Your task to perform on an android device: change text size in settings app Image 0: 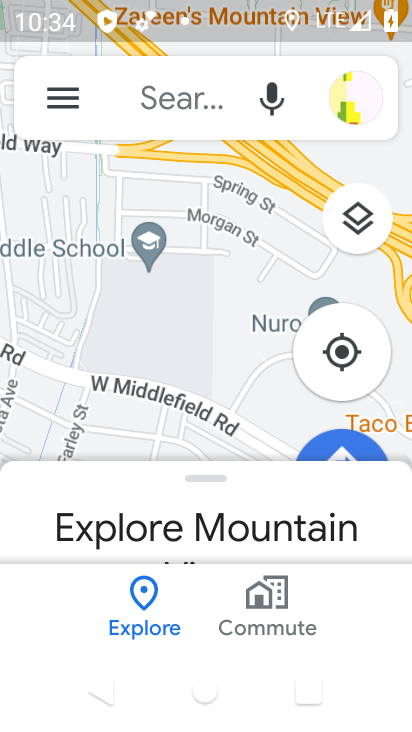
Step 0: press home button
Your task to perform on an android device: change text size in settings app Image 1: 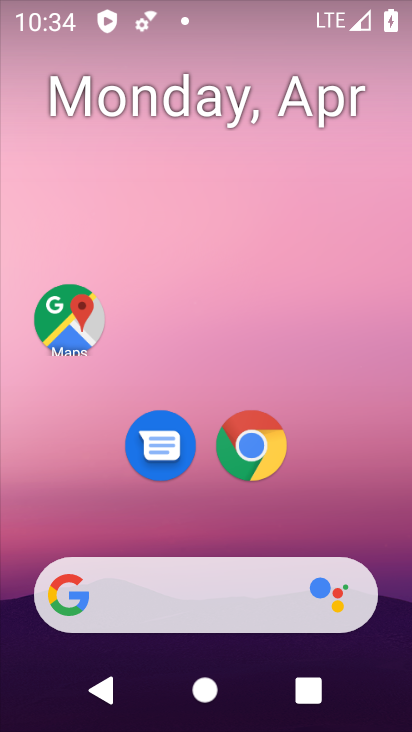
Step 1: drag from (163, 544) to (178, 202)
Your task to perform on an android device: change text size in settings app Image 2: 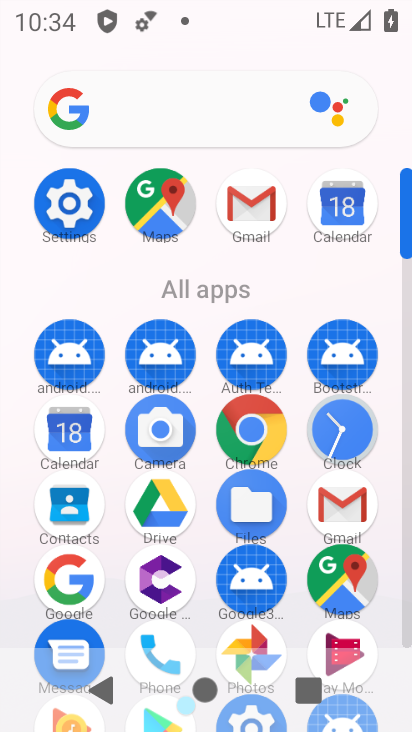
Step 2: click (66, 189)
Your task to perform on an android device: change text size in settings app Image 3: 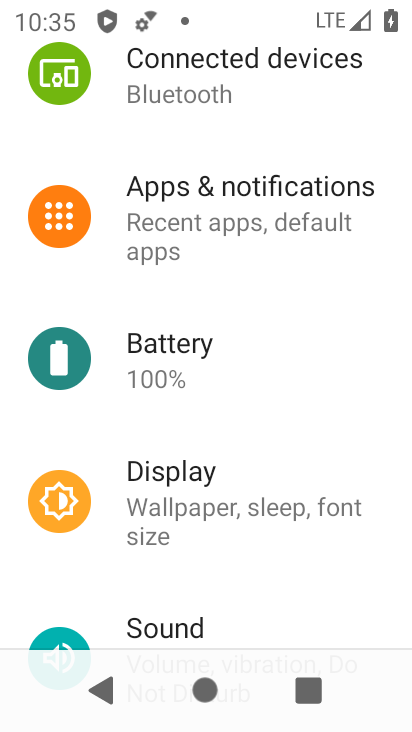
Step 3: drag from (199, 603) to (164, 280)
Your task to perform on an android device: change text size in settings app Image 4: 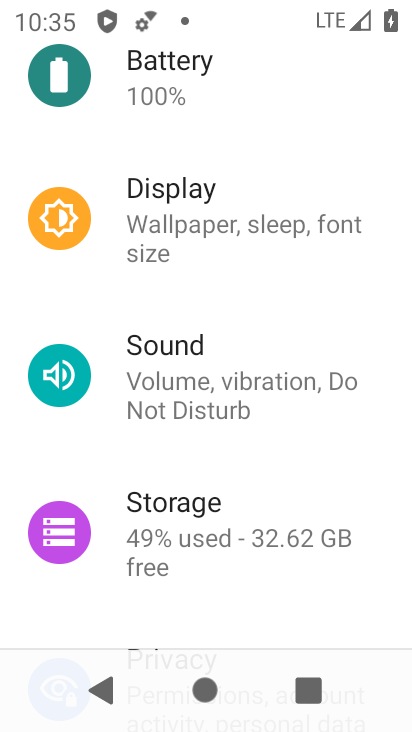
Step 4: drag from (258, 575) to (232, 339)
Your task to perform on an android device: change text size in settings app Image 5: 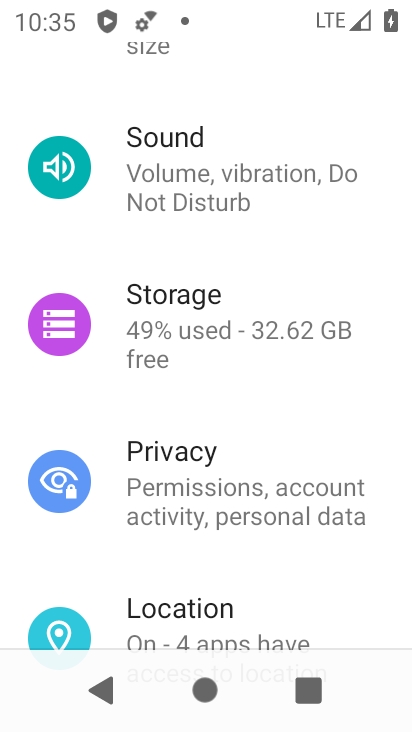
Step 5: drag from (229, 606) to (217, 414)
Your task to perform on an android device: change text size in settings app Image 6: 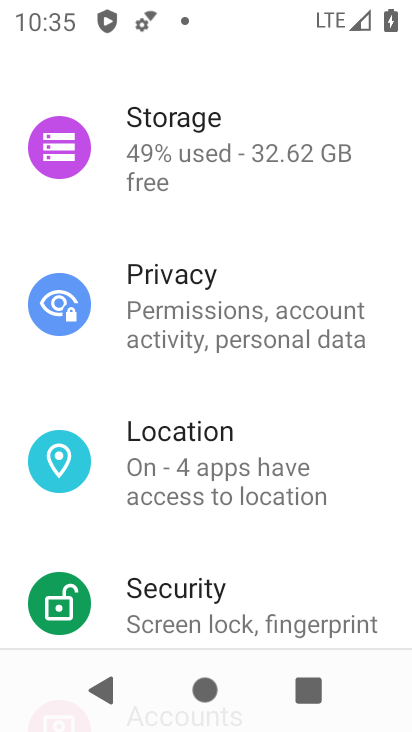
Step 6: drag from (269, 505) to (241, 233)
Your task to perform on an android device: change text size in settings app Image 7: 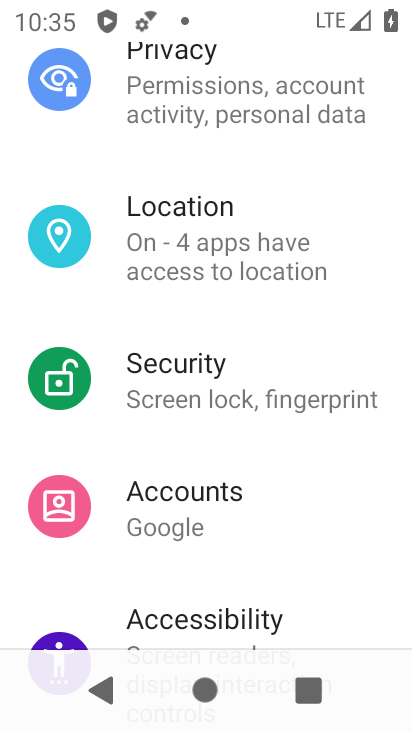
Step 7: drag from (214, 599) to (178, 421)
Your task to perform on an android device: change text size in settings app Image 8: 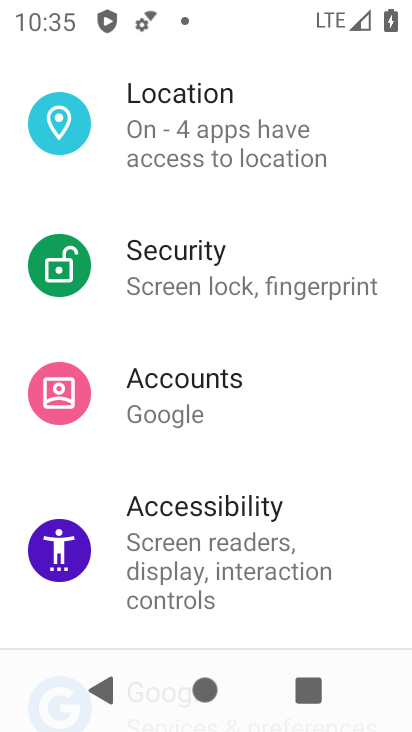
Step 8: drag from (216, 599) to (156, 342)
Your task to perform on an android device: change text size in settings app Image 9: 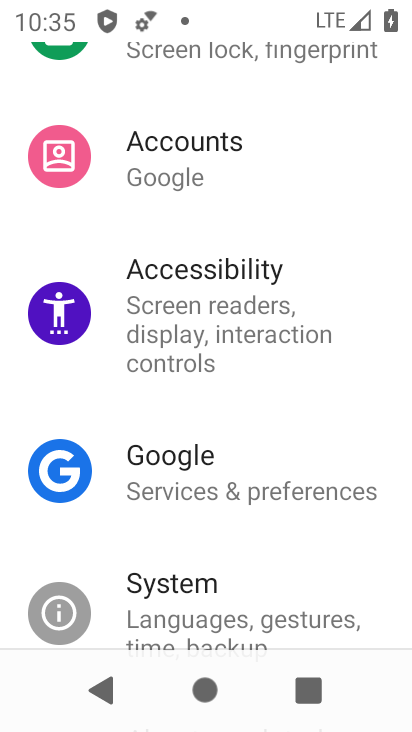
Step 9: click (179, 612)
Your task to perform on an android device: change text size in settings app Image 10: 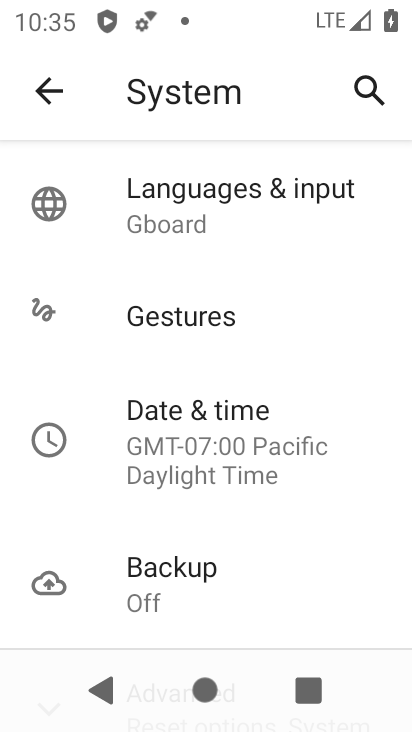
Step 10: click (33, 86)
Your task to perform on an android device: change text size in settings app Image 11: 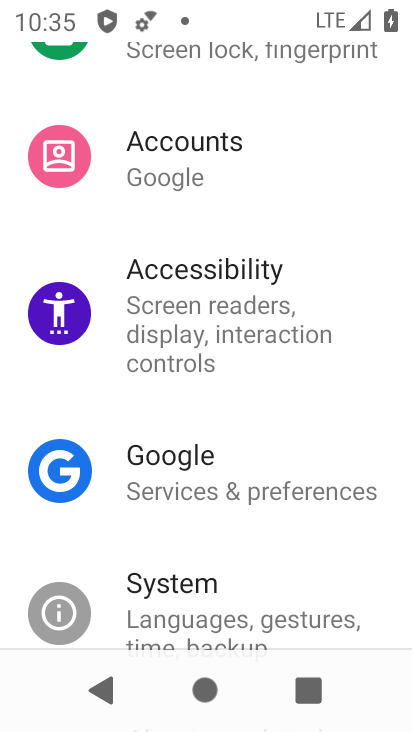
Step 11: click (166, 334)
Your task to perform on an android device: change text size in settings app Image 12: 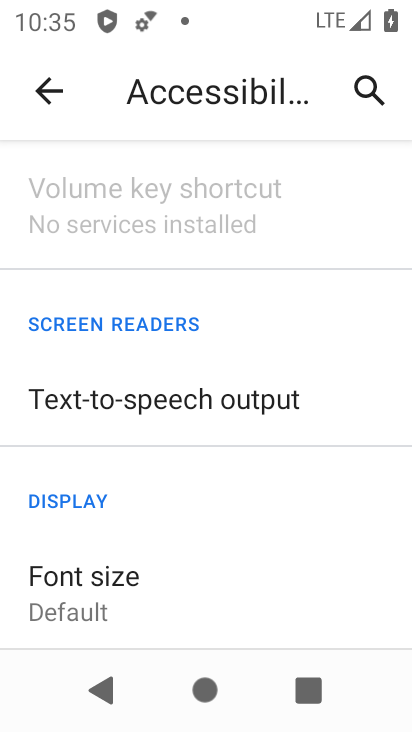
Step 12: click (111, 582)
Your task to perform on an android device: change text size in settings app Image 13: 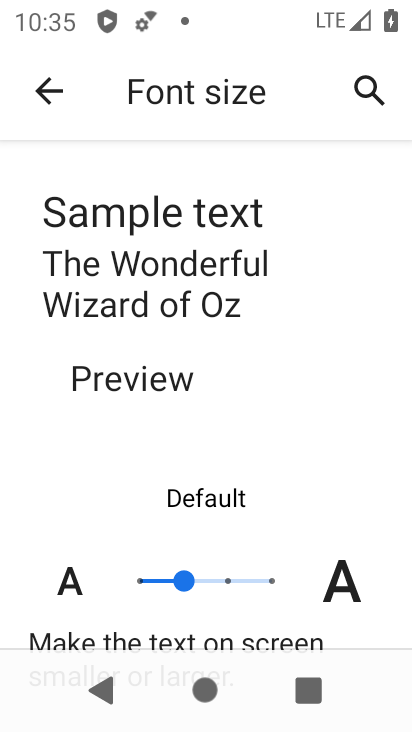
Step 13: click (224, 577)
Your task to perform on an android device: change text size in settings app Image 14: 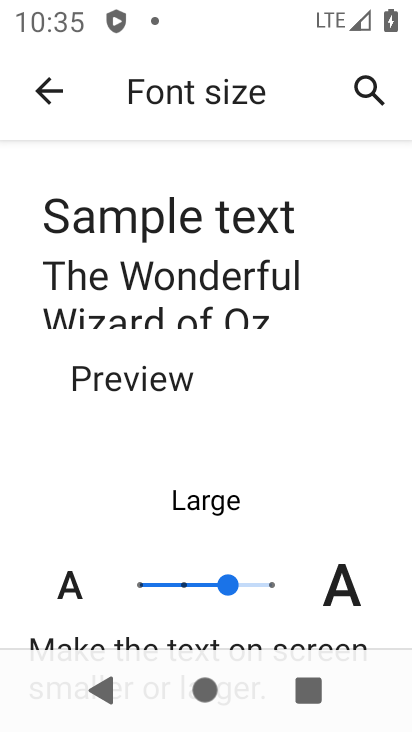
Step 14: task complete